Your task to perform on an android device: uninstall "Pinterest" Image 0: 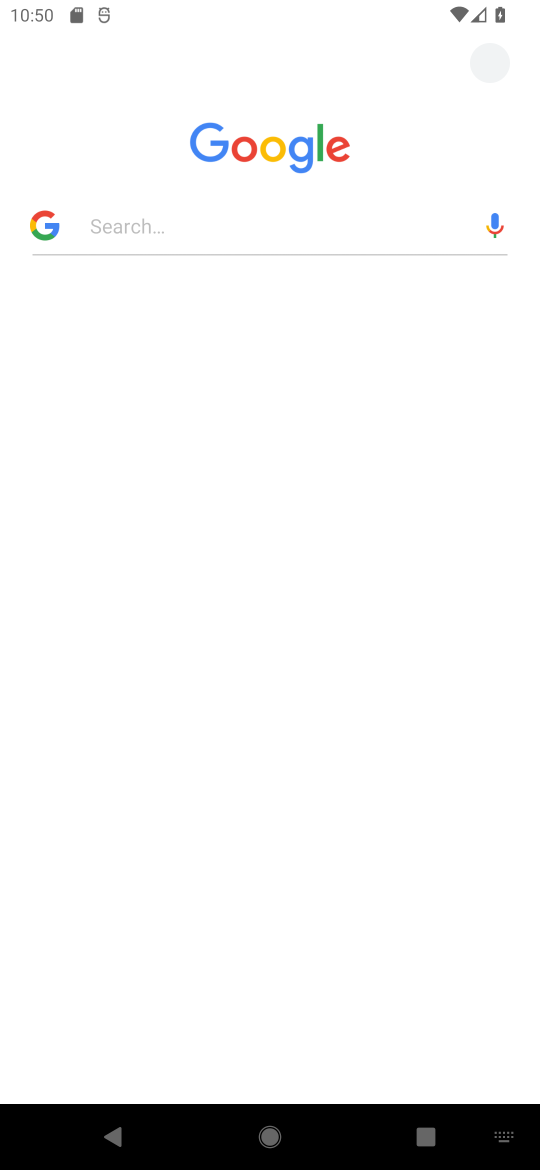
Step 0: press home button
Your task to perform on an android device: uninstall "Pinterest" Image 1: 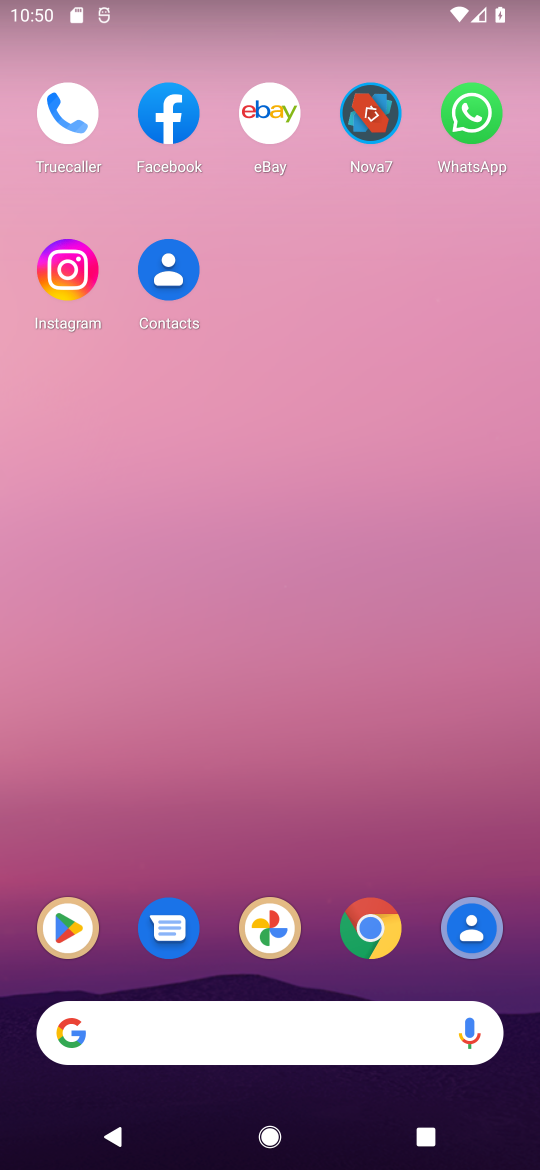
Step 1: click (74, 933)
Your task to perform on an android device: uninstall "Pinterest" Image 2: 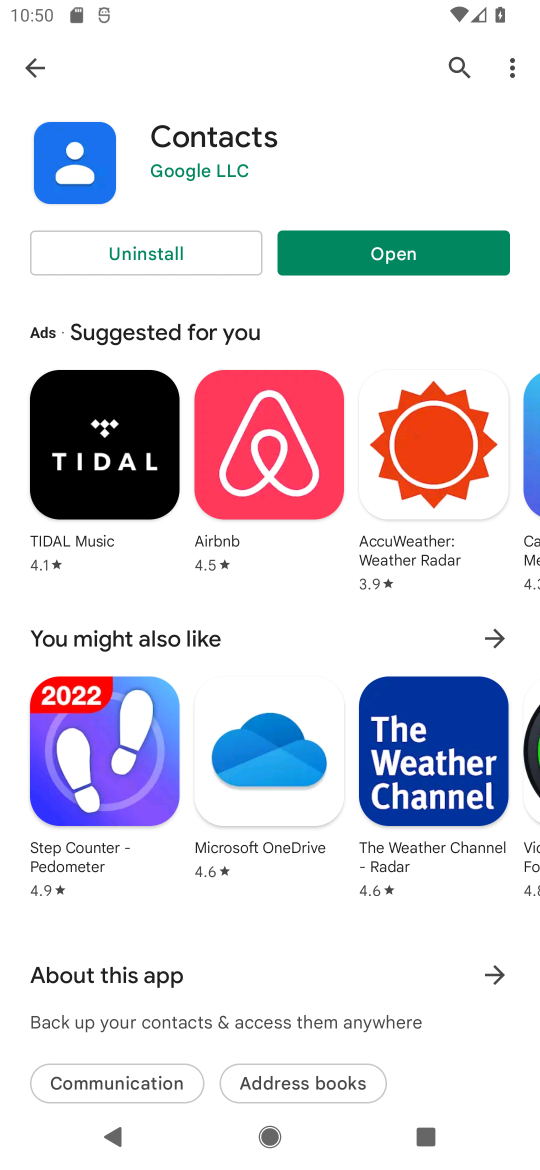
Step 2: click (447, 53)
Your task to perform on an android device: uninstall "Pinterest" Image 3: 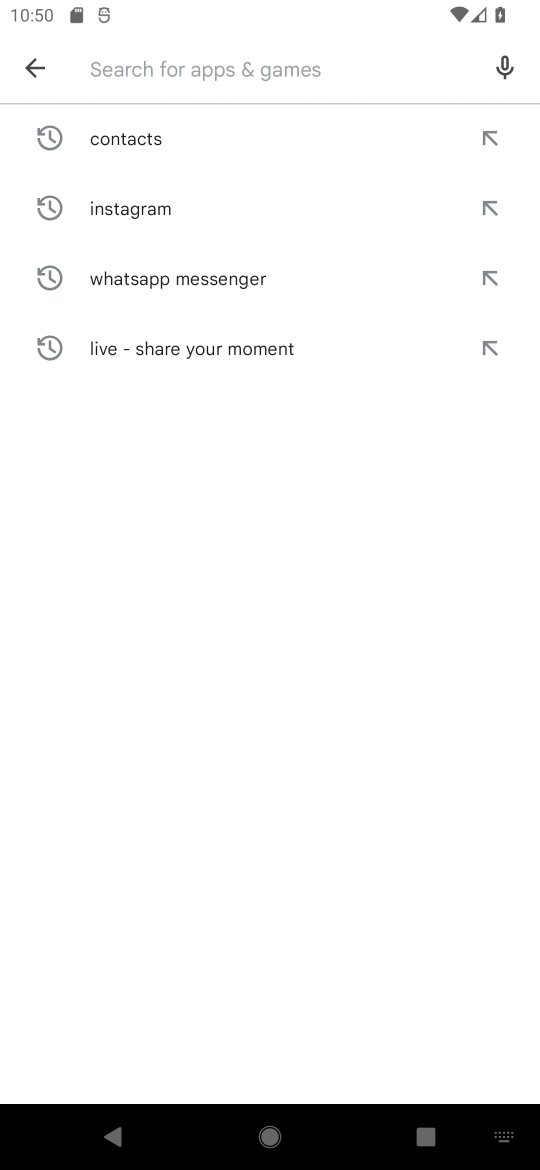
Step 3: type "pinterest"
Your task to perform on an android device: uninstall "Pinterest" Image 4: 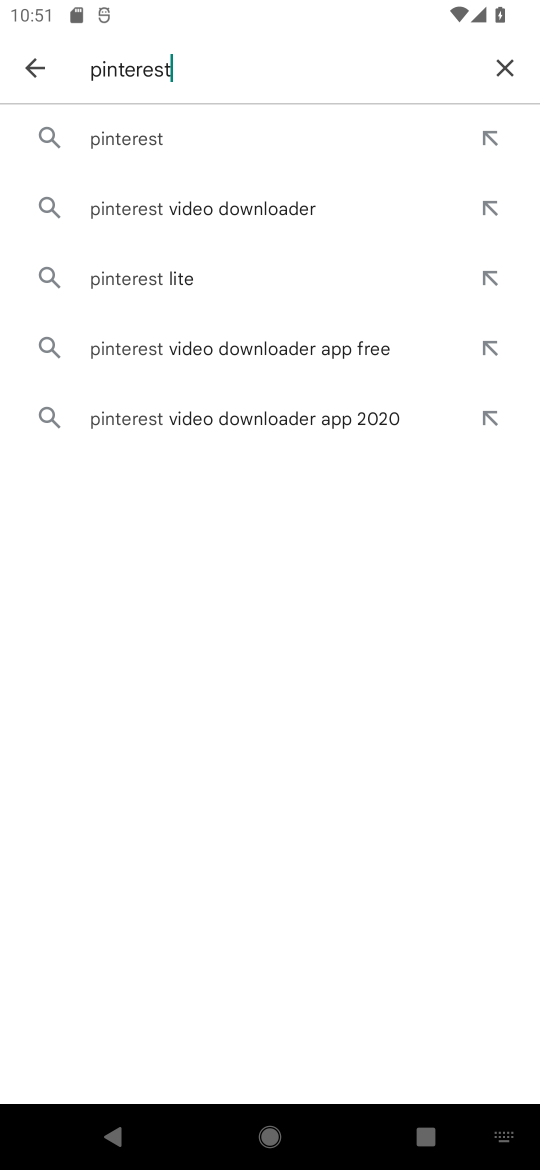
Step 4: click (222, 144)
Your task to perform on an android device: uninstall "Pinterest" Image 5: 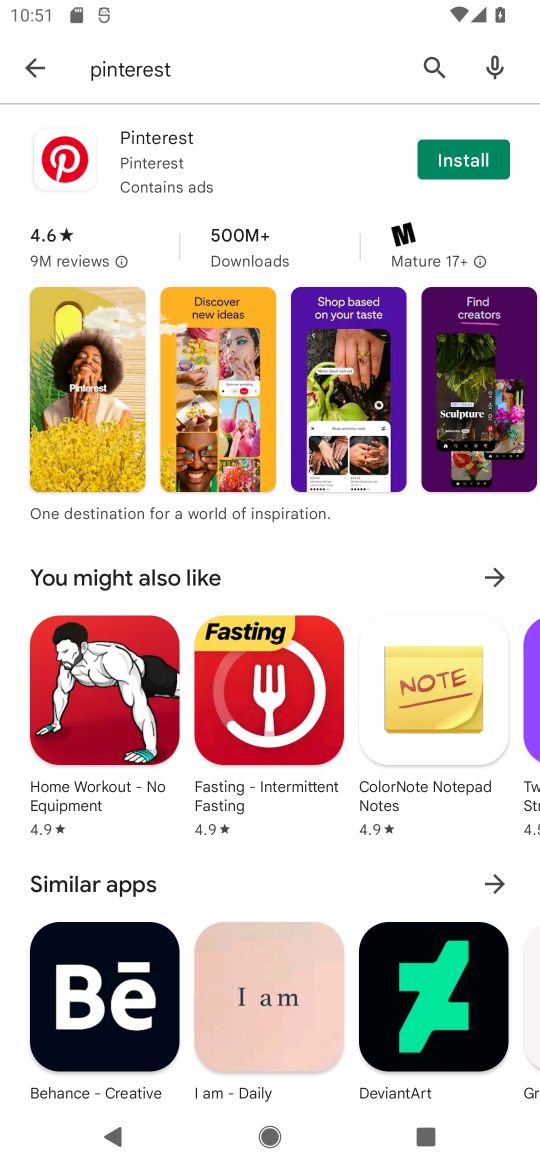
Step 5: click (147, 138)
Your task to perform on an android device: uninstall "Pinterest" Image 6: 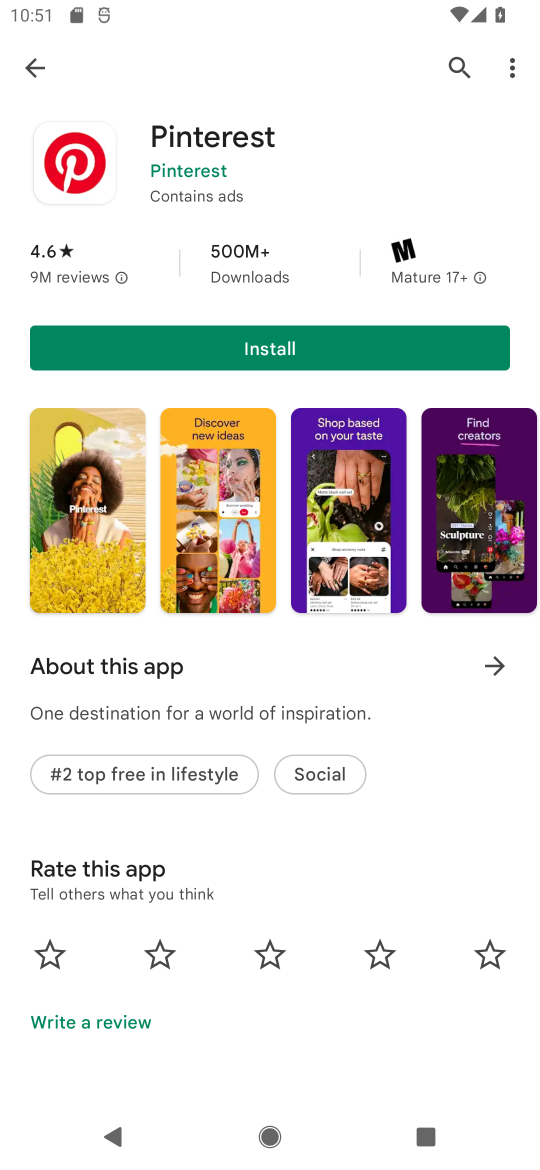
Step 6: task complete